Your task to perform on an android device: allow notifications from all sites in the chrome app Image 0: 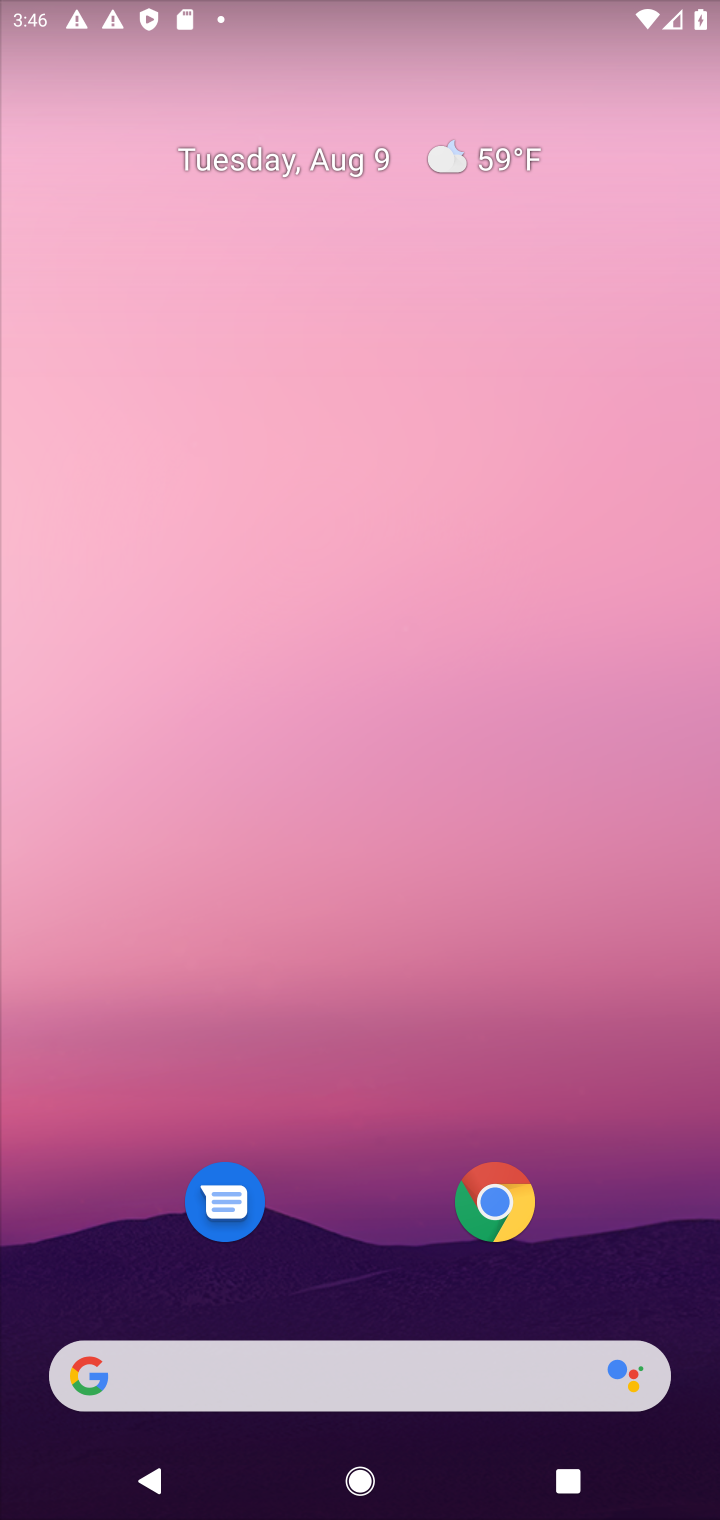
Step 0: drag from (375, 1232) to (378, 143)
Your task to perform on an android device: allow notifications from all sites in the chrome app Image 1: 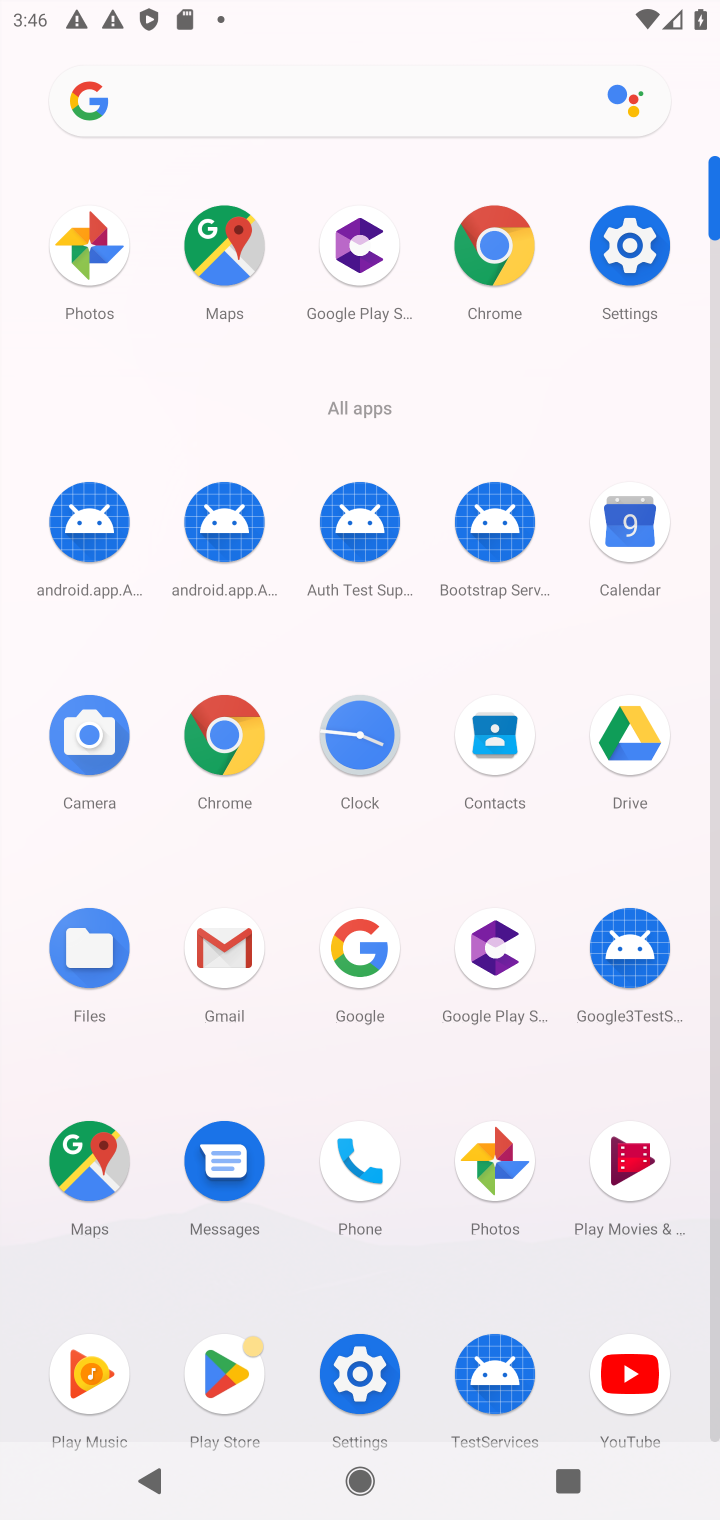
Step 1: click (488, 243)
Your task to perform on an android device: allow notifications from all sites in the chrome app Image 2: 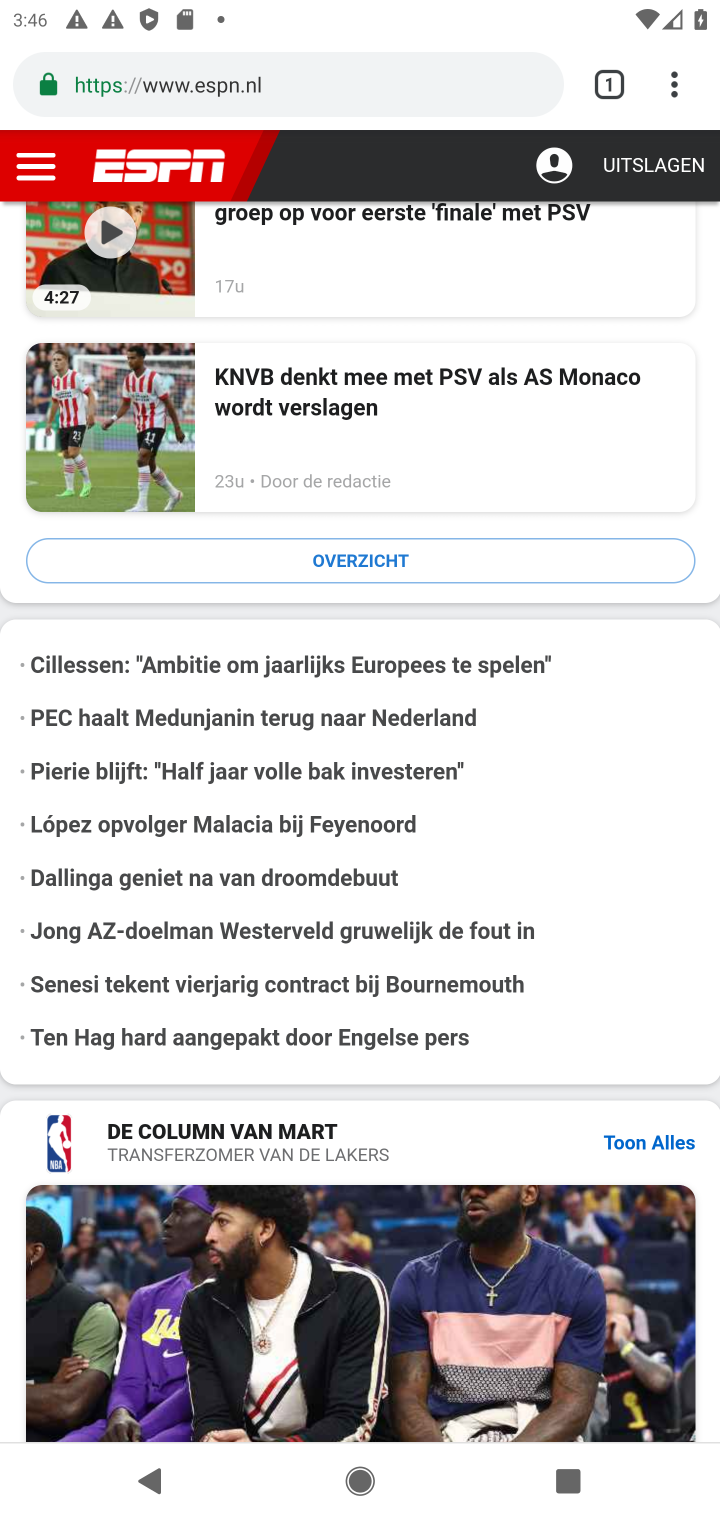
Step 2: click (684, 82)
Your task to perform on an android device: allow notifications from all sites in the chrome app Image 3: 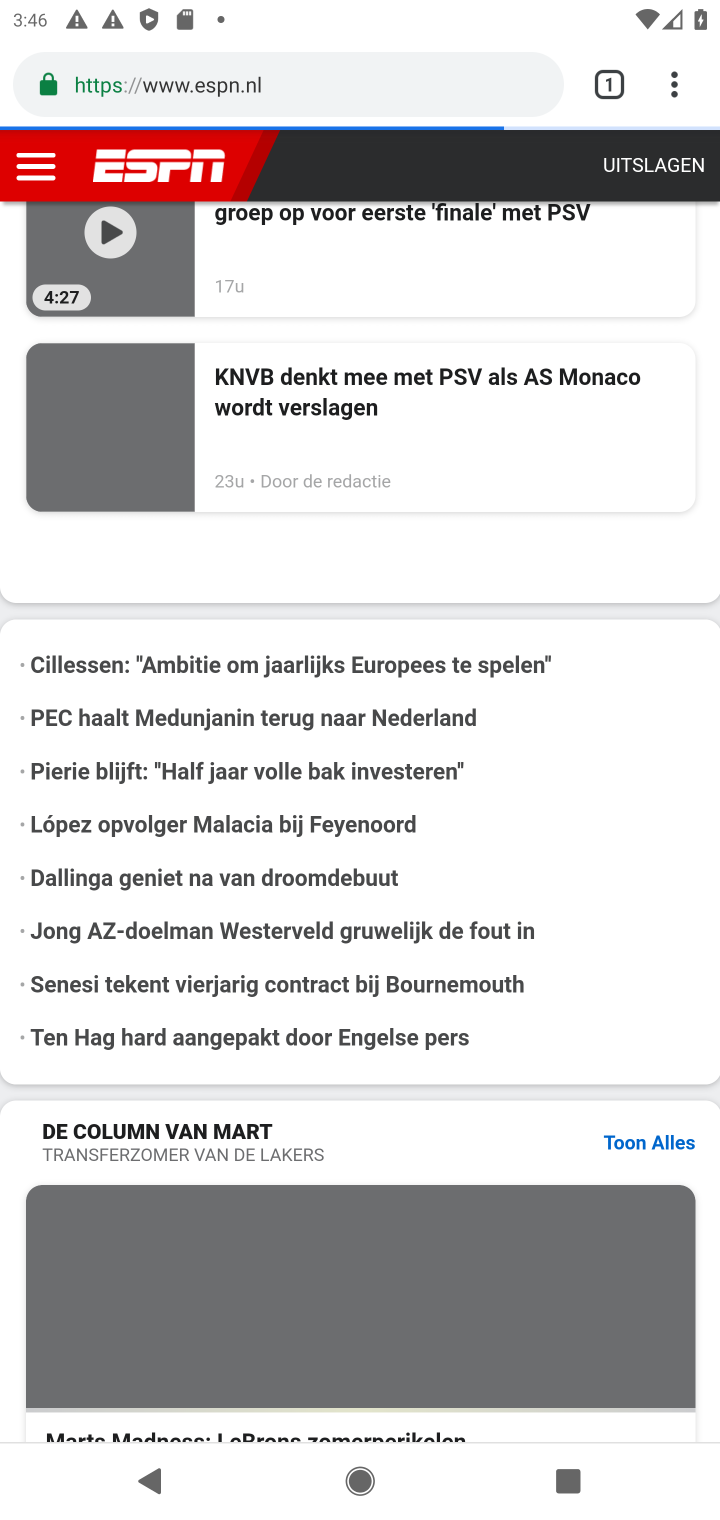
Step 3: click (677, 77)
Your task to perform on an android device: allow notifications from all sites in the chrome app Image 4: 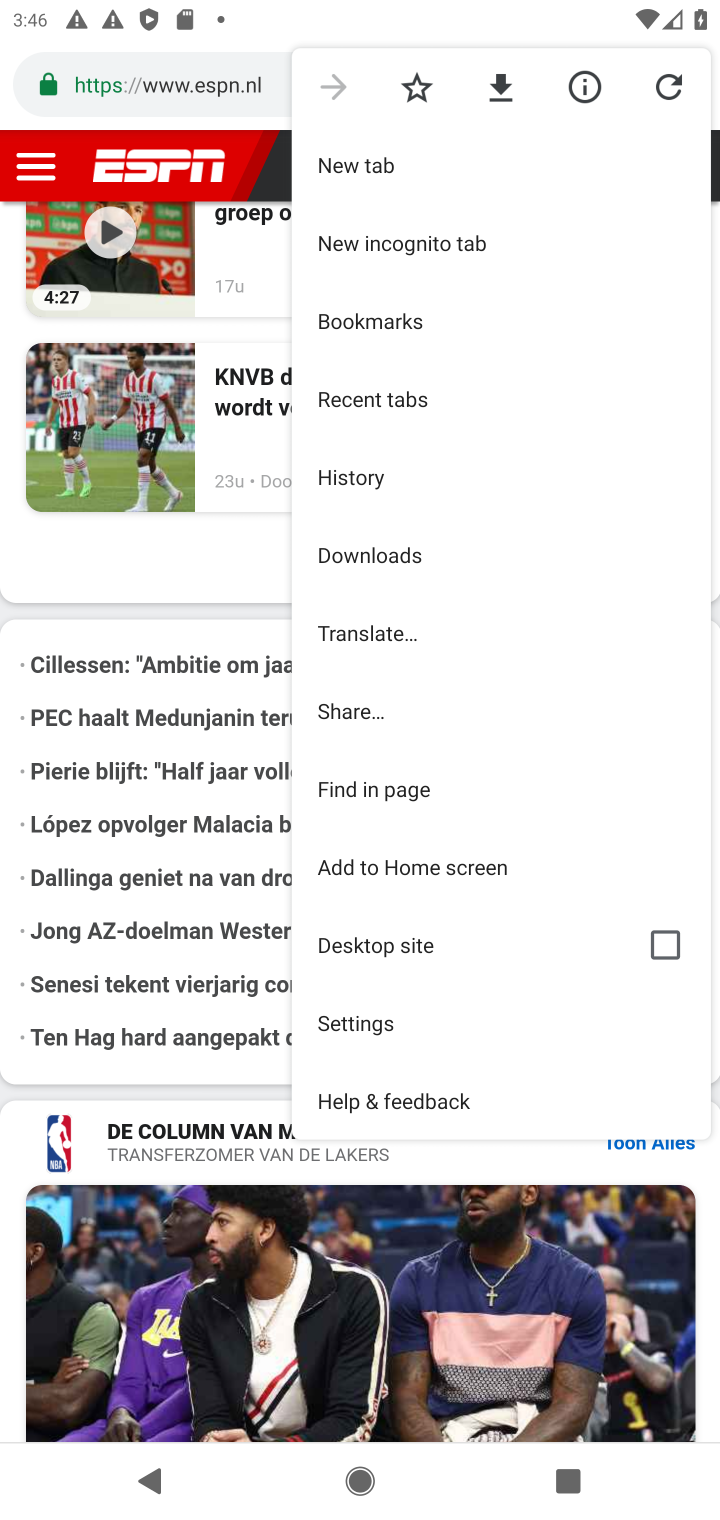
Step 4: click (404, 1022)
Your task to perform on an android device: allow notifications from all sites in the chrome app Image 5: 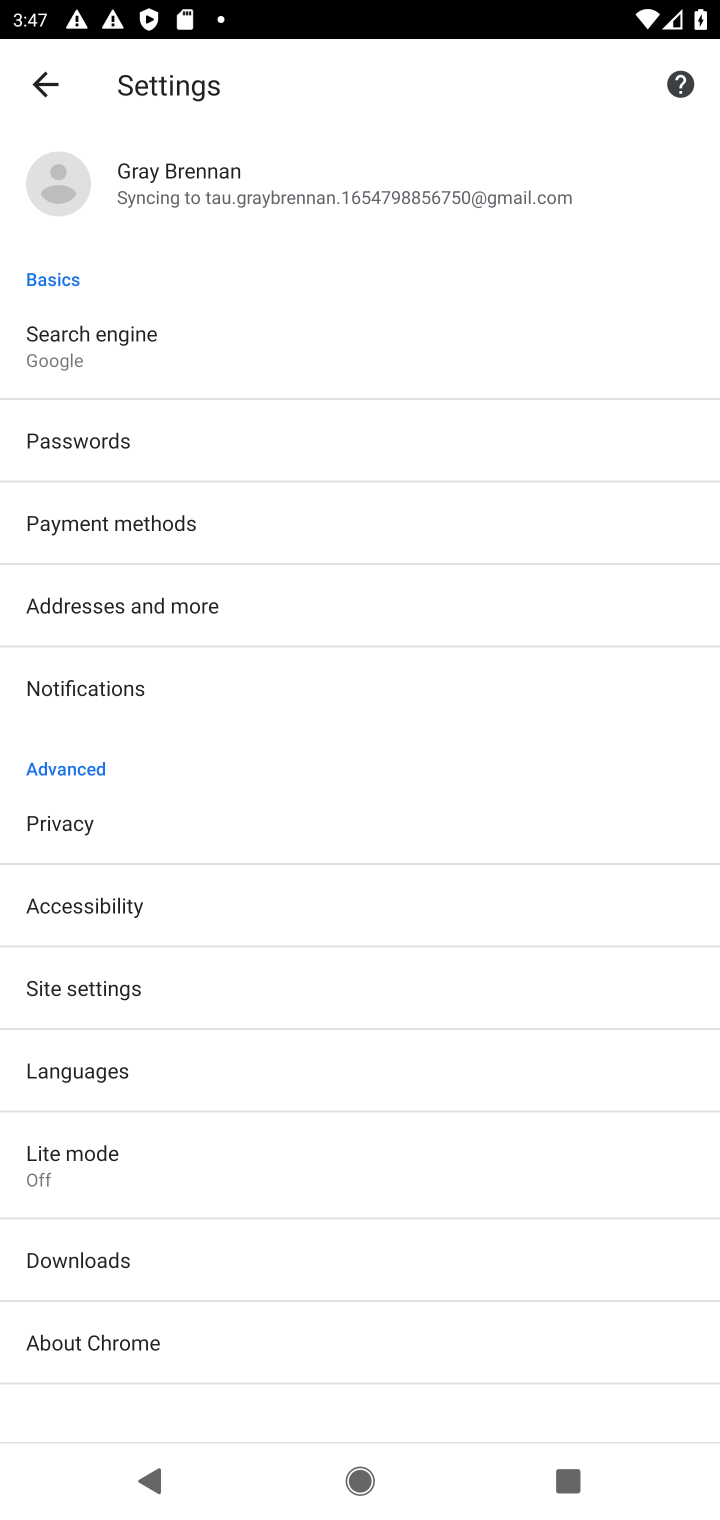
Step 5: click (158, 979)
Your task to perform on an android device: allow notifications from all sites in the chrome app Image 6: 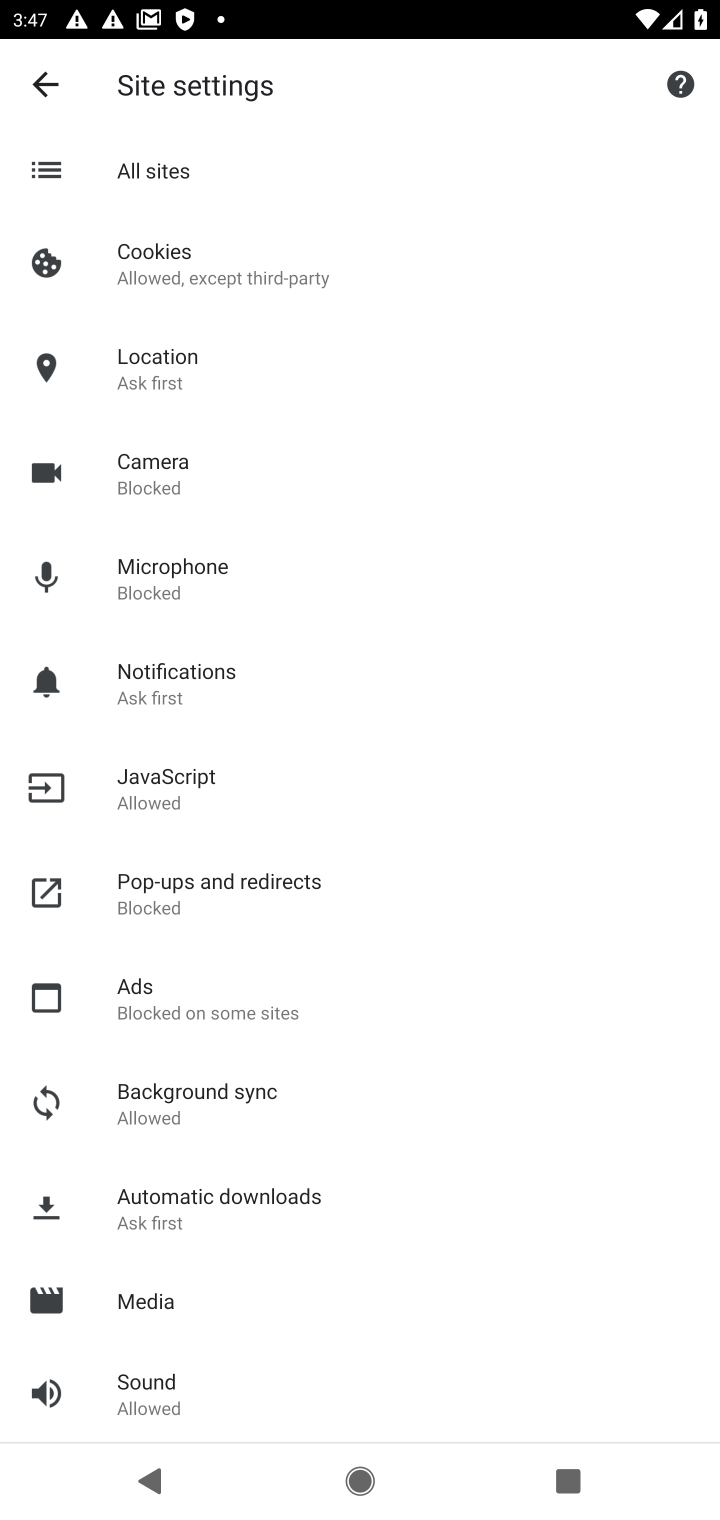
Step 6: click (121, 165)
Your task to perform on an android device: allow notifications from all sites in the chrome app Image 7: 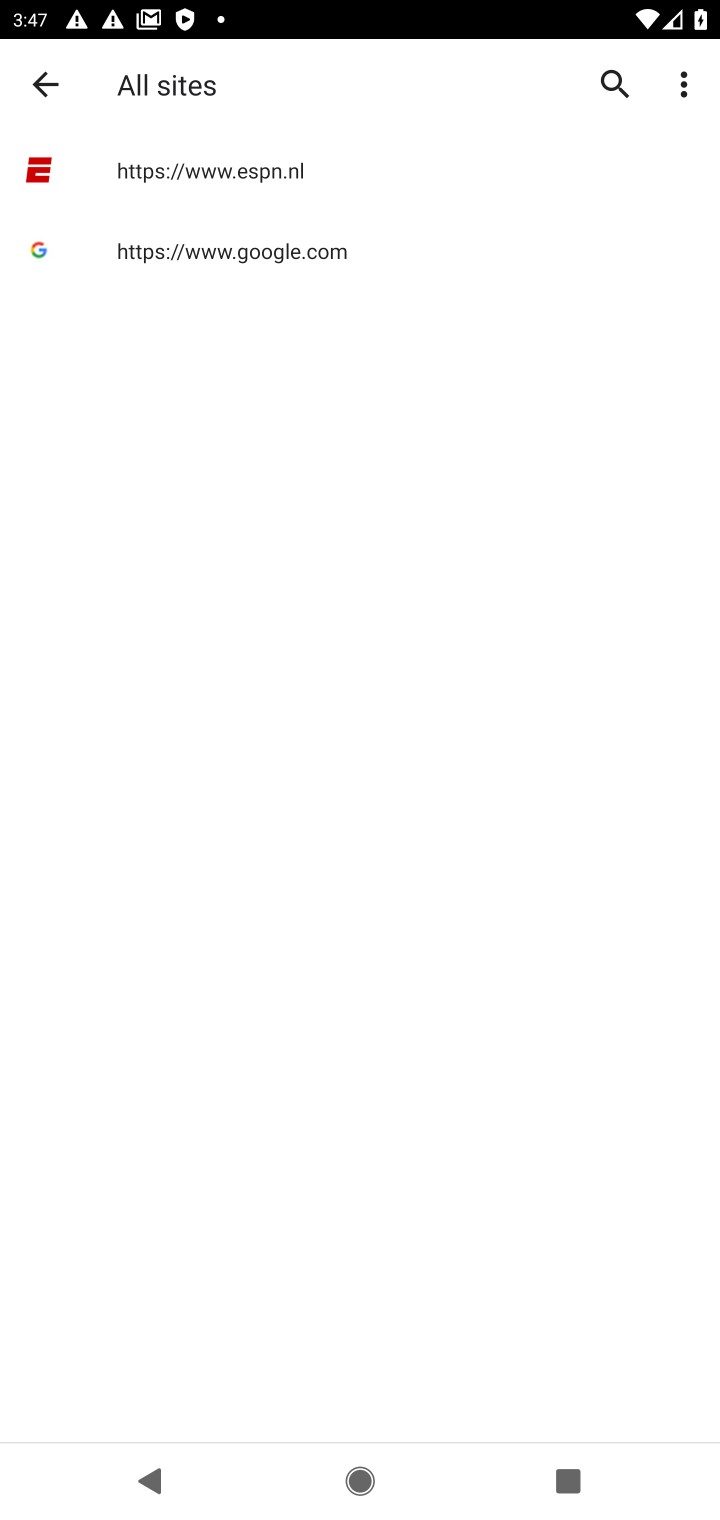
Step 7: task complete